Your task to perform on an android device: open app "Gmail" (install if not already installed) Image 0: 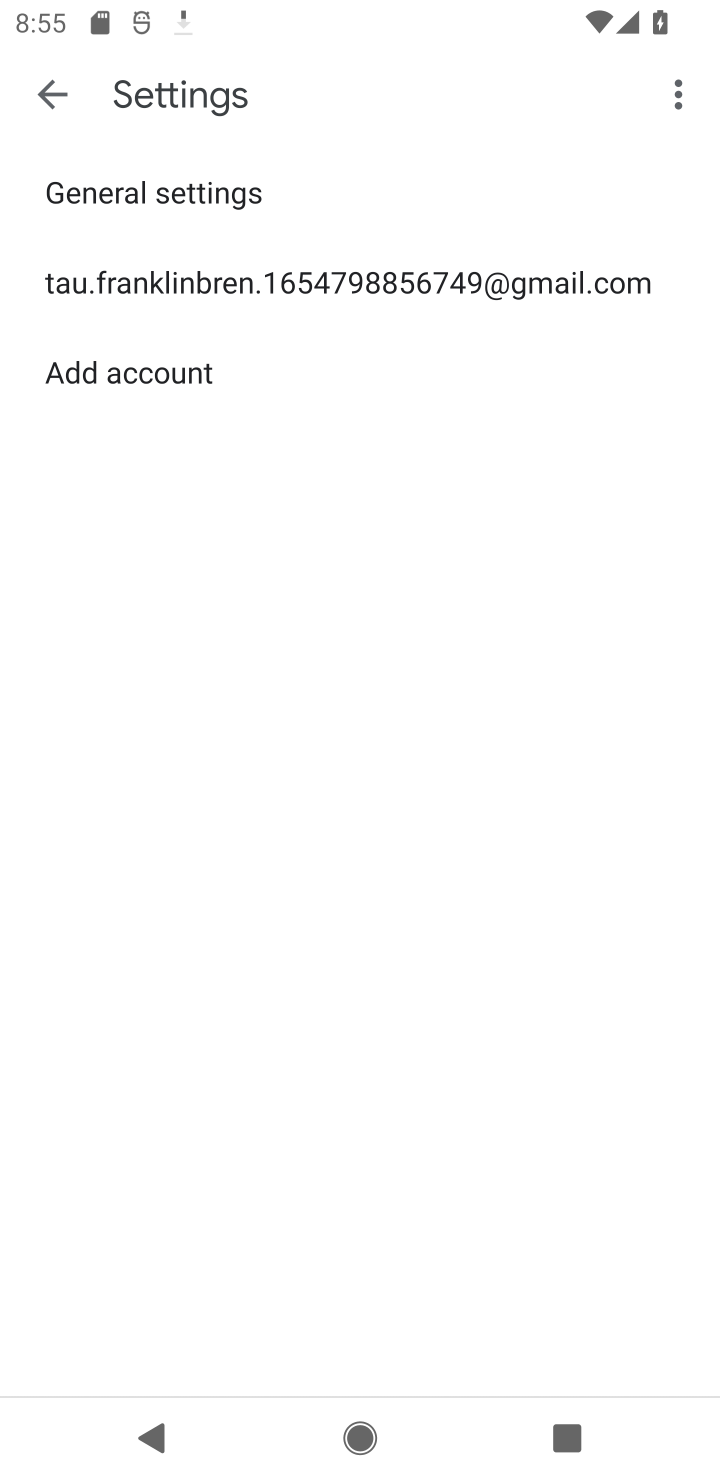
Step 0: press home button
Your task to perform on an android device: open app "Gmail" (install if not already installed) Image 1: 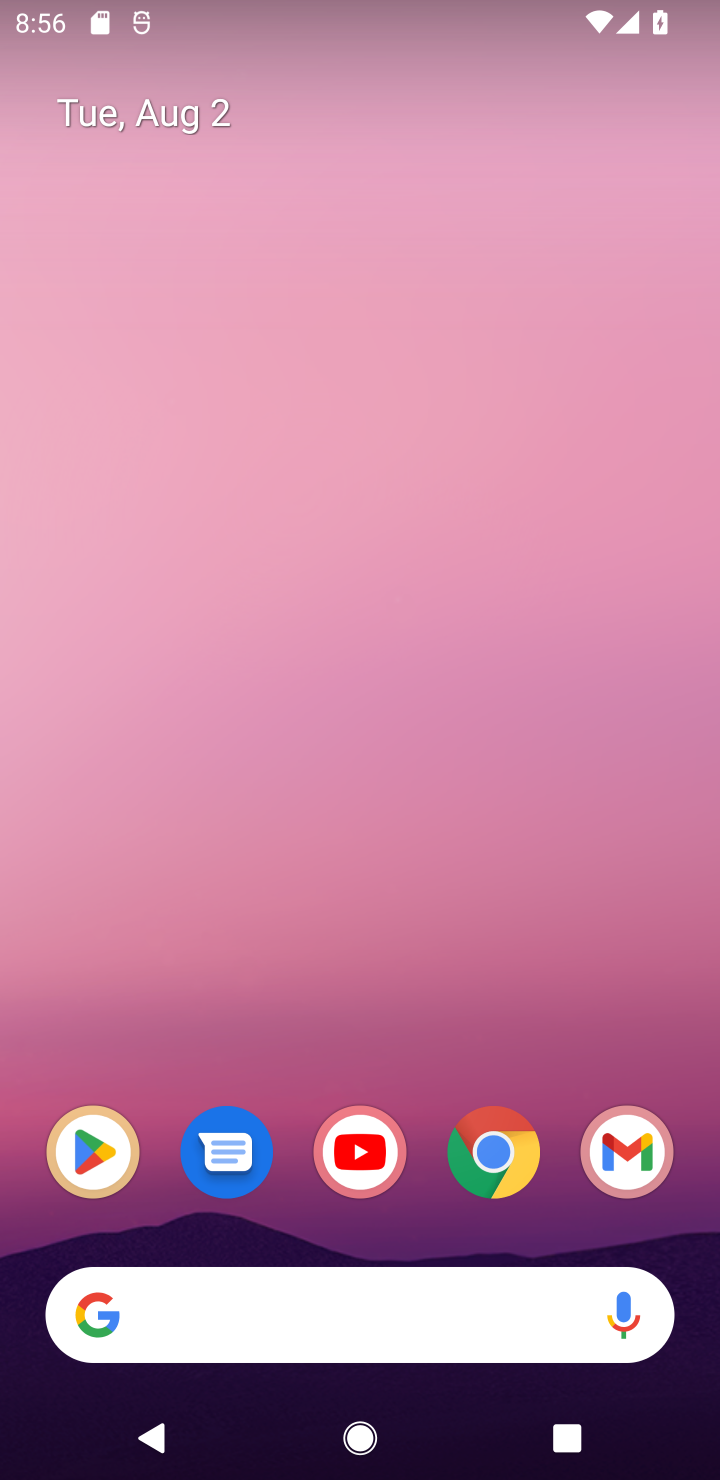
Step 1: click (95, 1148)
Your task to perform on an android device: open app "Gmail" (install if not already installed) Image 2: 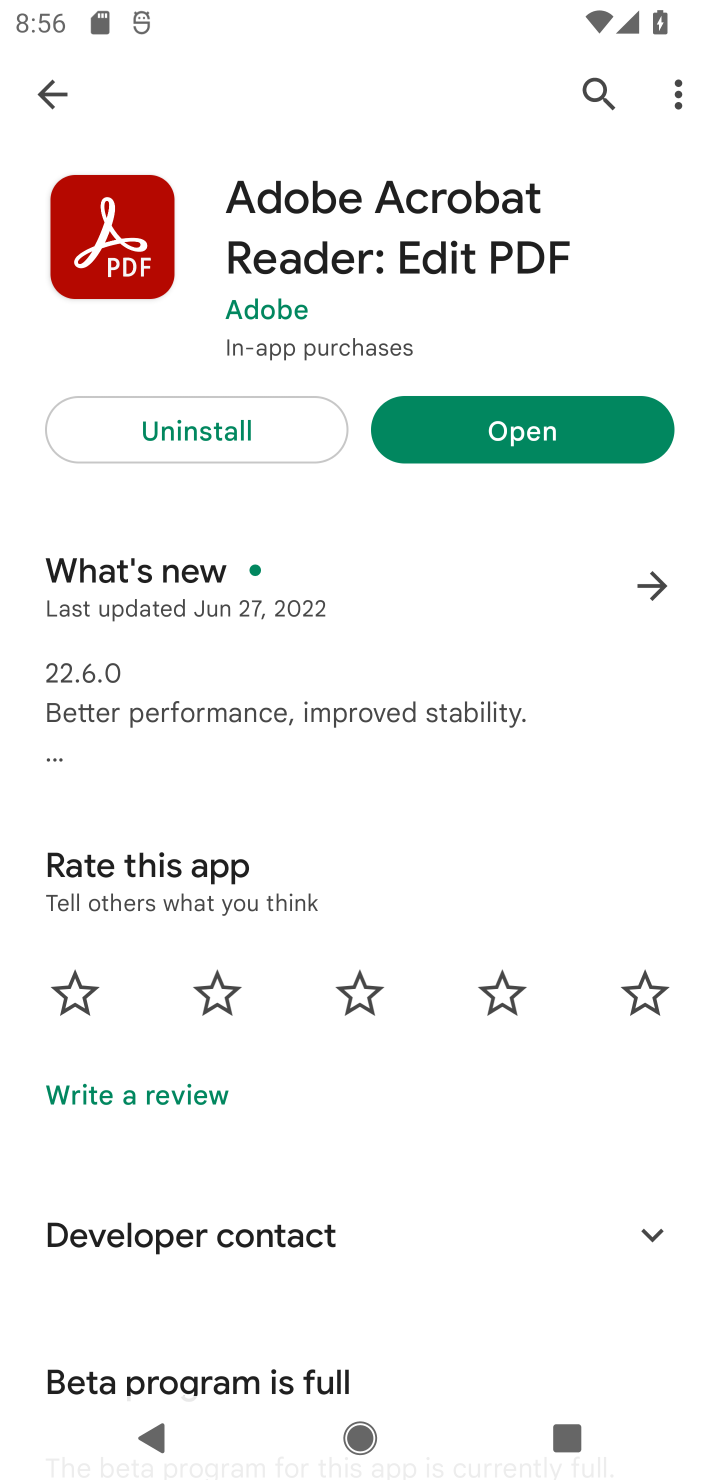
Step 2: click (62, 83)
Your task to perform on an android device: open app "Gmail" (install if not already installed) Image 3: 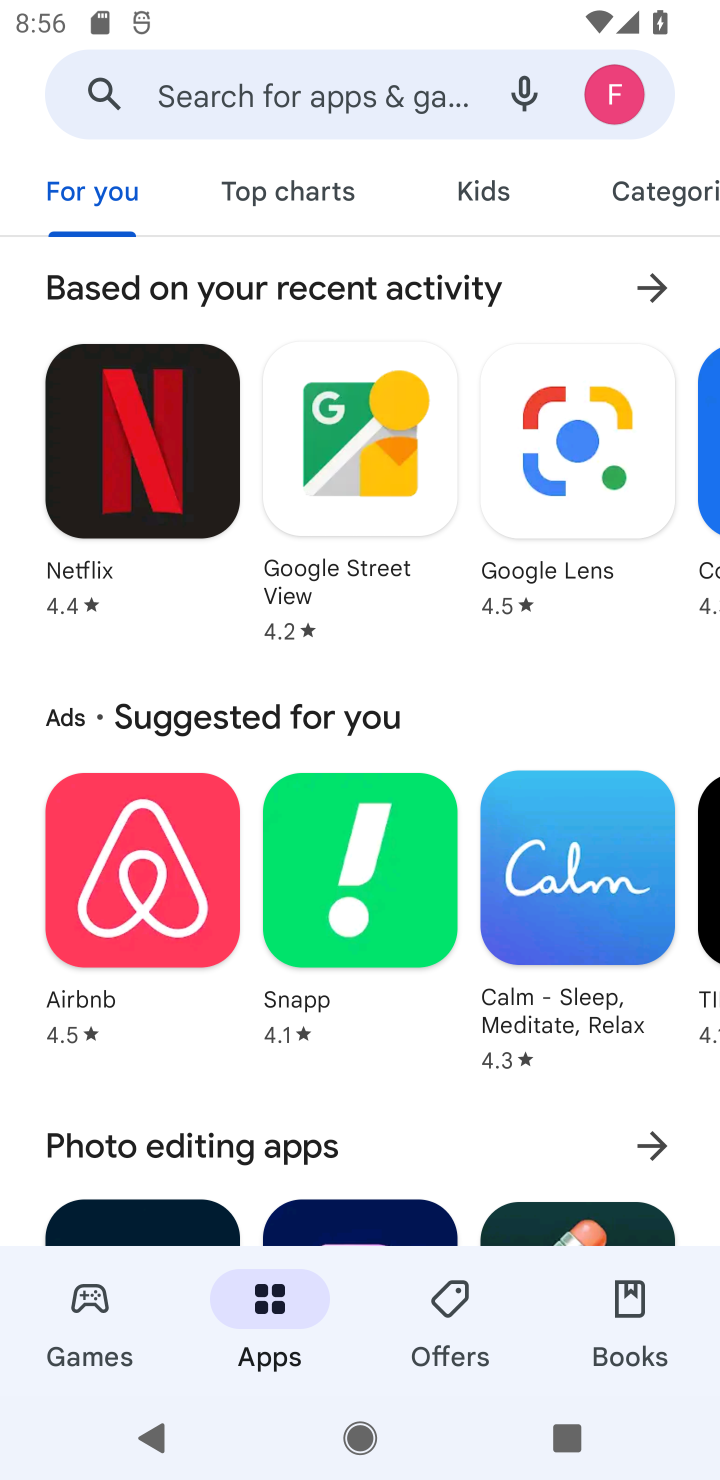
Step 3: click (237, 107)
Your task to perform on an android device: open app "Gmail" (install if not already installed) Image 4: 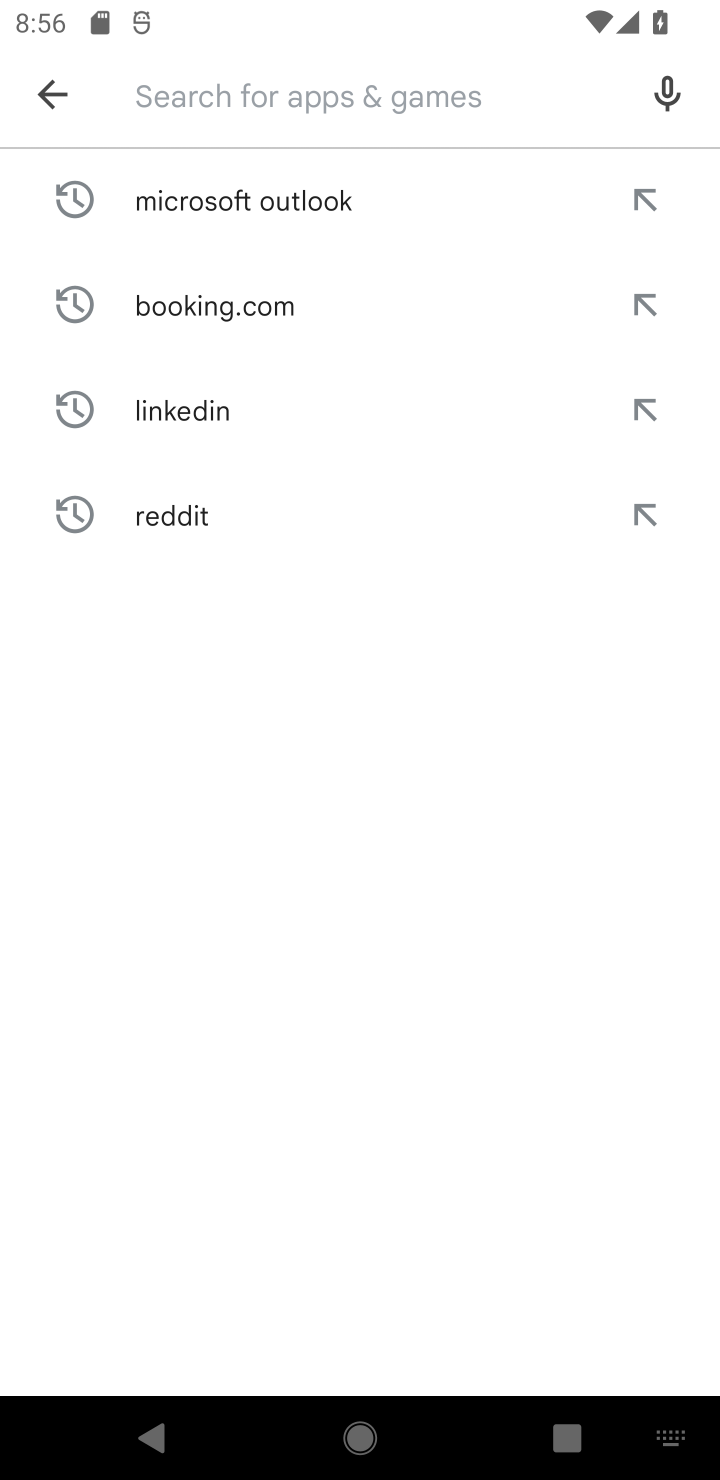
Step 4: type "Gmail"
Your task to perform on an android device: open app "Gmail" (install if not already installed) Image 5: 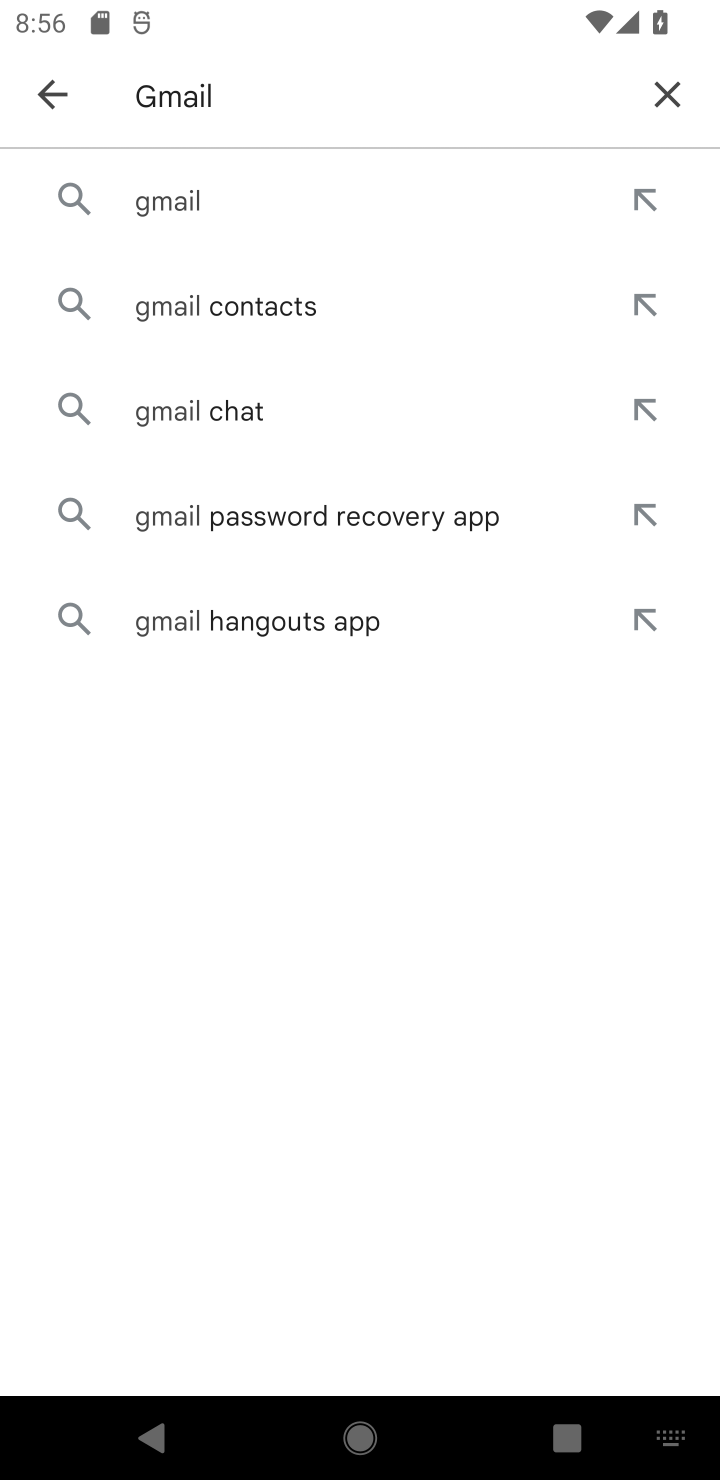
Step 5: click (178, 202)
Your task to perform on an android device: open app "Gmail" (install if not already installed) Image 6: 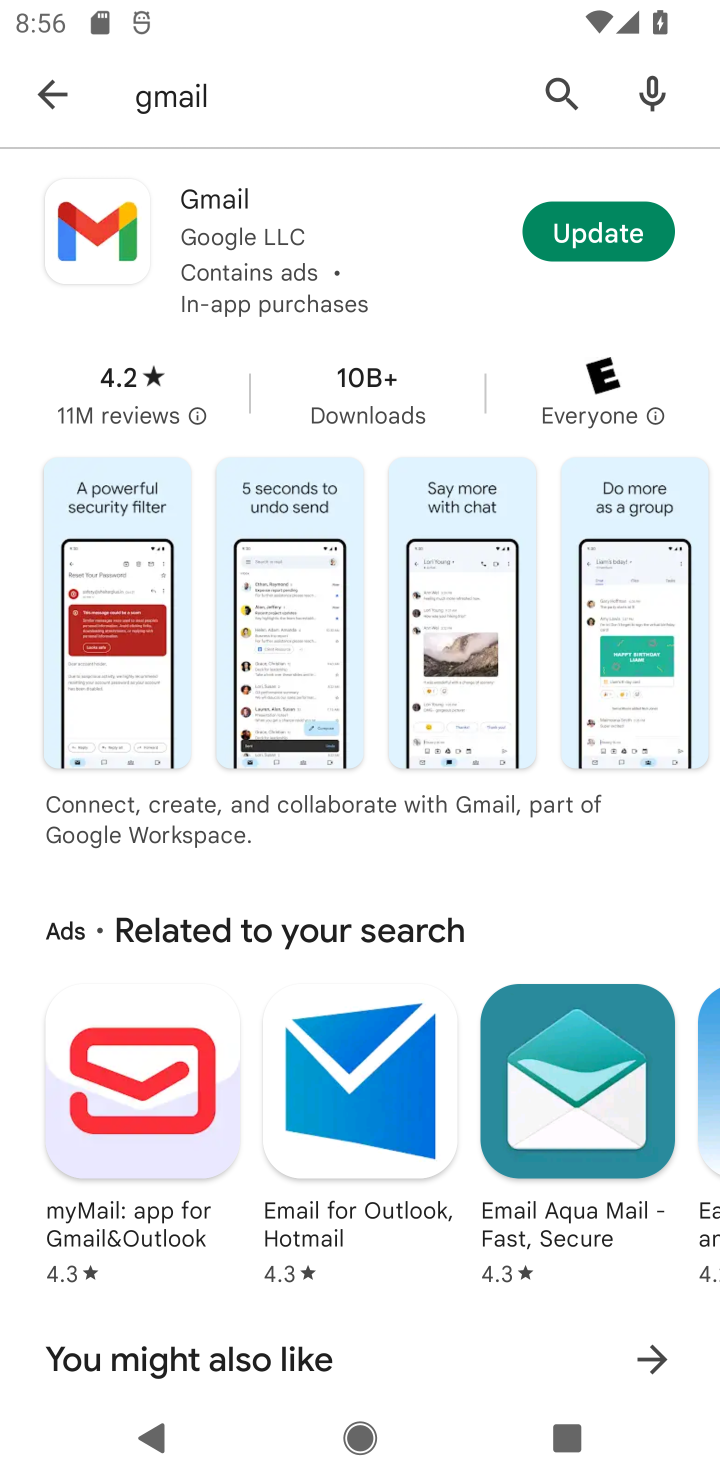
Step 6: click (637, 237)
Your task to perform on an android device: open app "Gmail" (install if not already installed) Image 7: 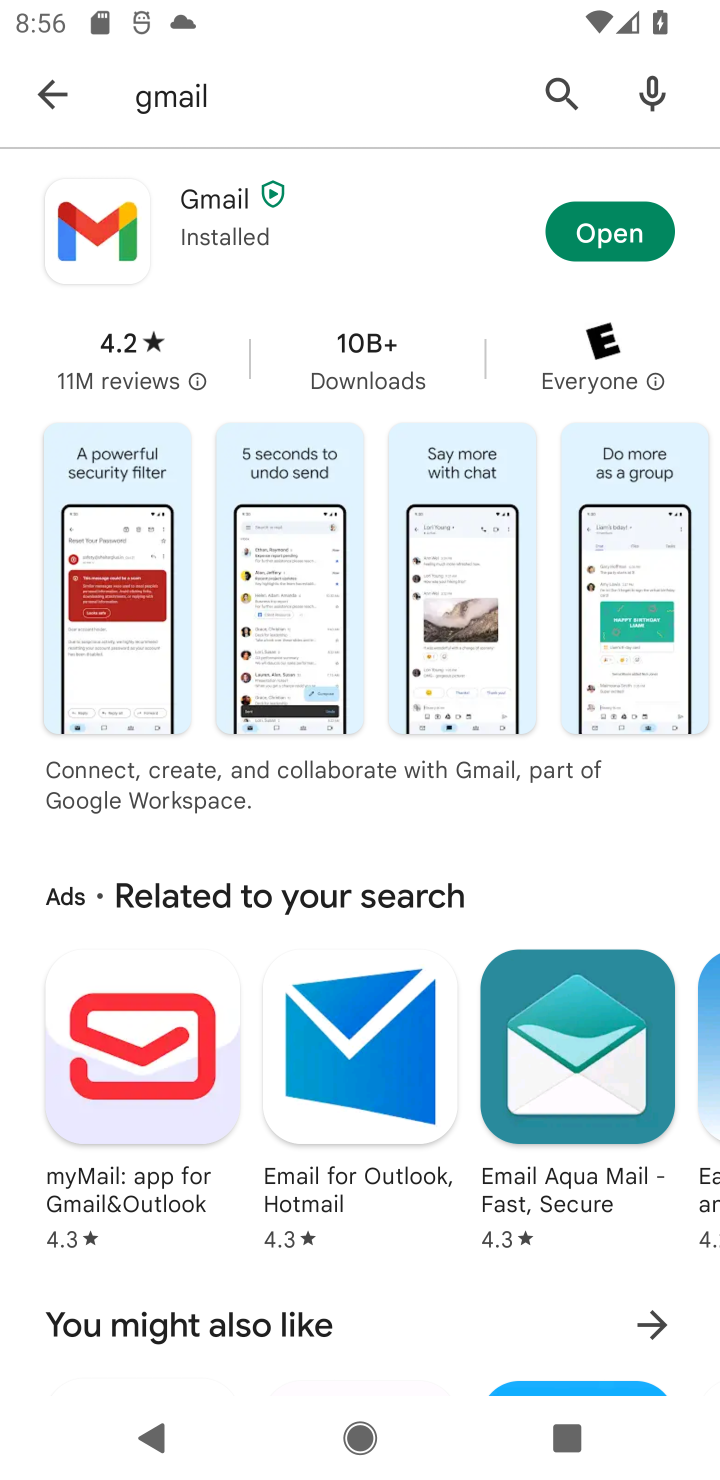
Step 7: click (564, 218)
Your task to perform on an android device: open app "Gmail" (install if not already installed) Image 8: 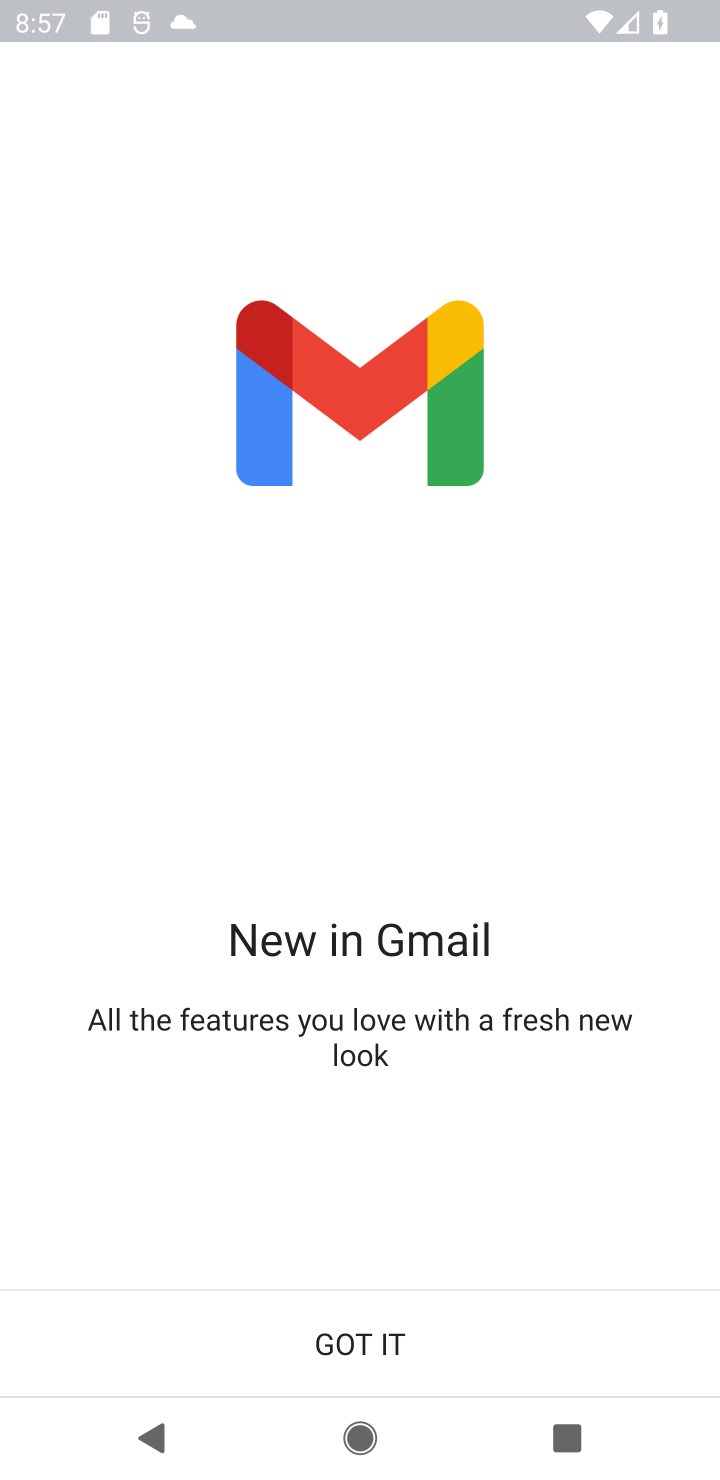
Step 8: task complete